Your task to perform on an android device: Open settings Image 0: 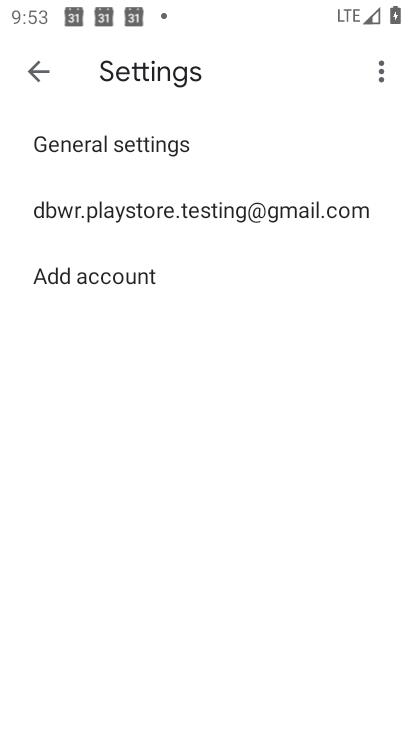
Step 0: press home button
Your task to perform on an android device: Open settings Image 1: 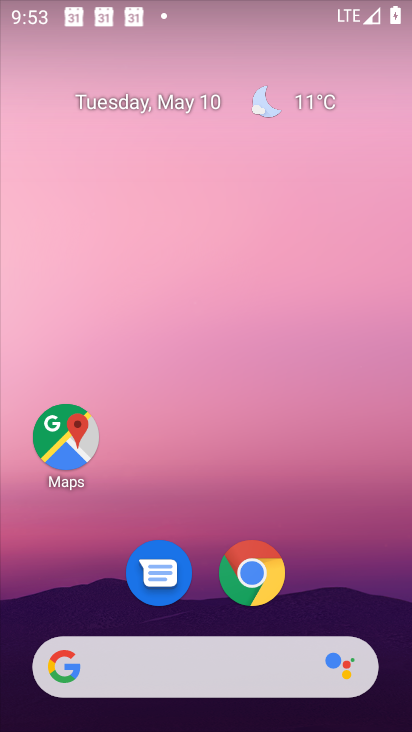
Step 1: drag from (315, 601) to (335, 170)
Your task to perform on an android device: Open settings Image 2: 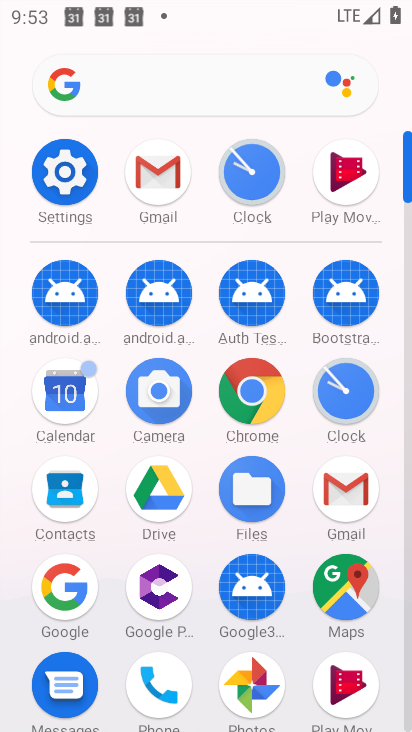
Step 2: click (87, 190)
Your task to perform on an android device: Open settings Image 3: 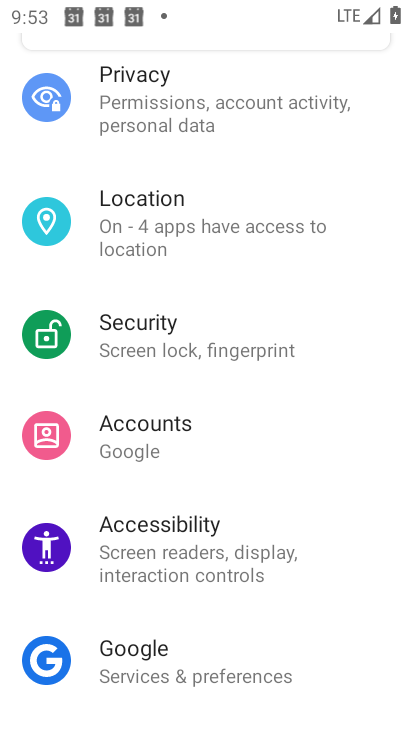
Step 3: task complete